Your task to perform on an android device: open a bookmark in the chrome app Image 0: 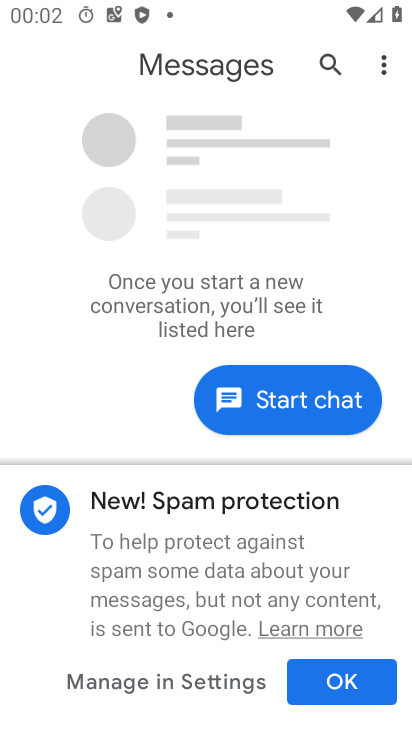
Step 0: press home button
Your task to perform on an android device: open a bookmark in the chrome app Image 1: 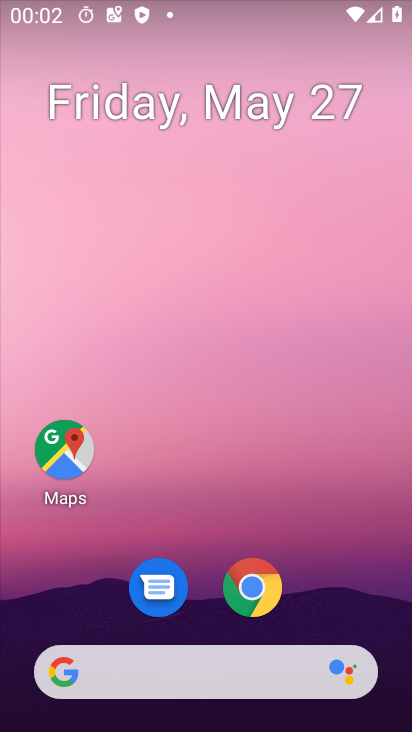
Step 1: click (251, 587)
Your task to perform on an android device: open a bookmark in the chrome app Image 2: 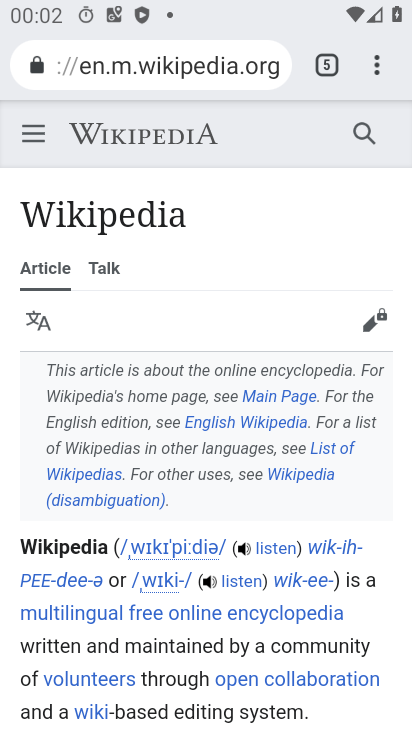
Step 2: click (378, 70)
Your task to perform on an android device: open a bookmark in the chrome app Image 3: 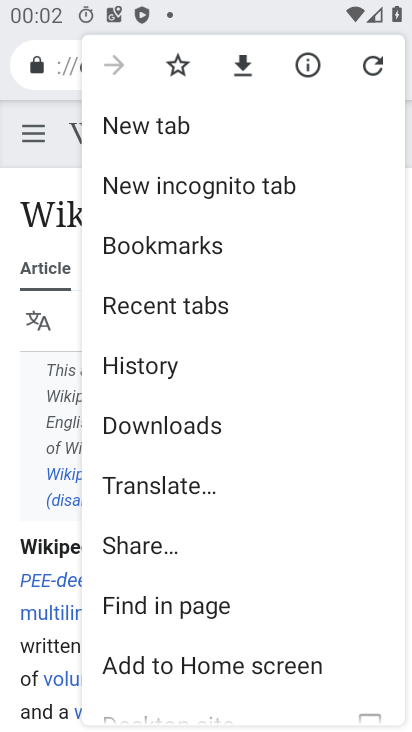
Step 3: click (194, 243)
Your task to perform on an android device: open a bookmark in the chrome app Image 4: 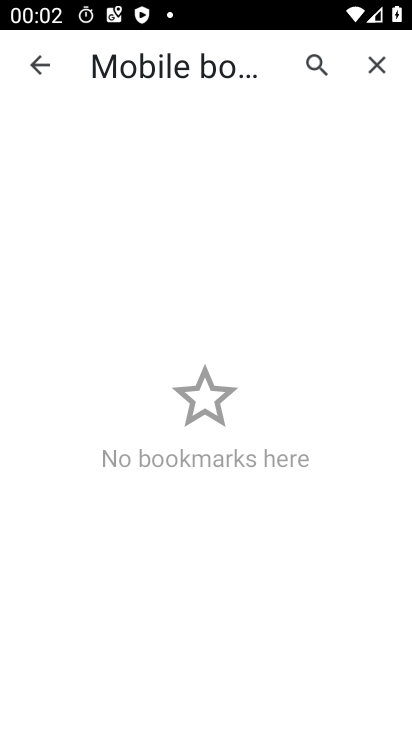
Step 4: task complete